Your task to perform on an android device: Open CNN.com Image 0: 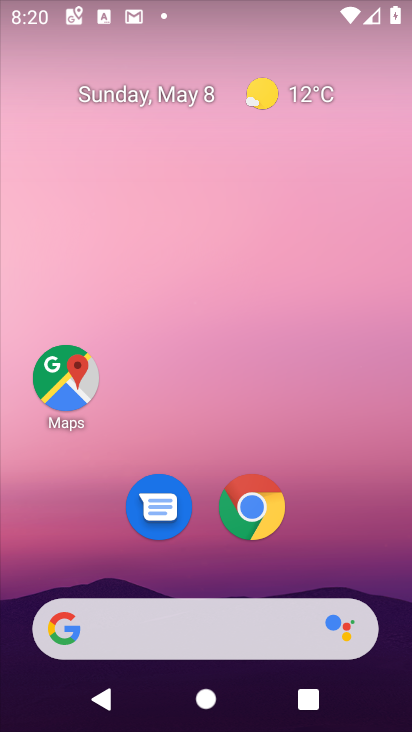
Step 0: click (228, 620)
Your task to perform on an android device: Open CNN.com Image 1: 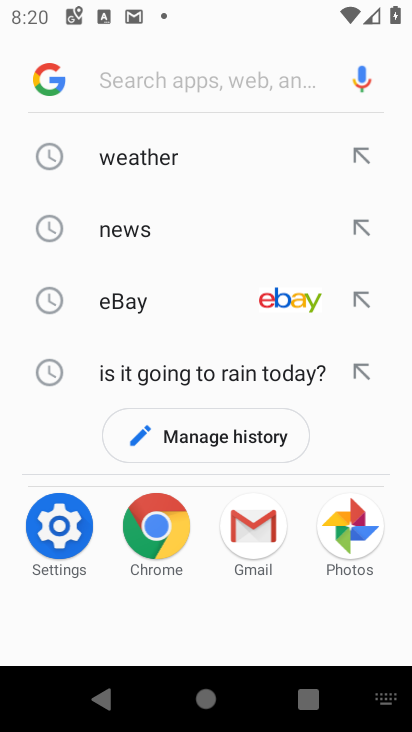
Step 1: type "cnn.com"
Your task to perform on an android device: Open CNN.com Image 2: 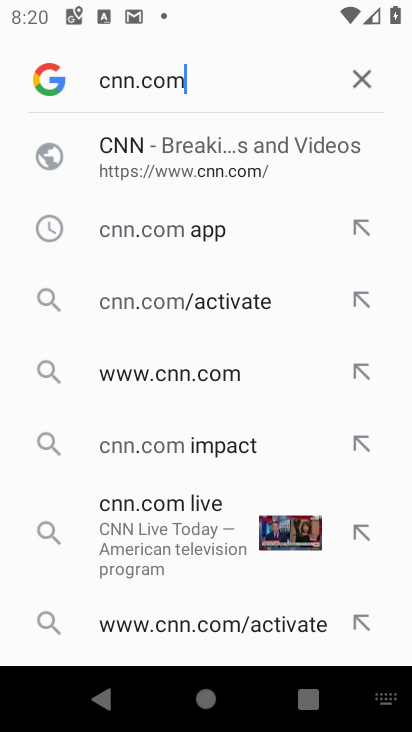
Step 2: click (185, 167)
Your task to perform on an android device: Open CNN.com Image 3: 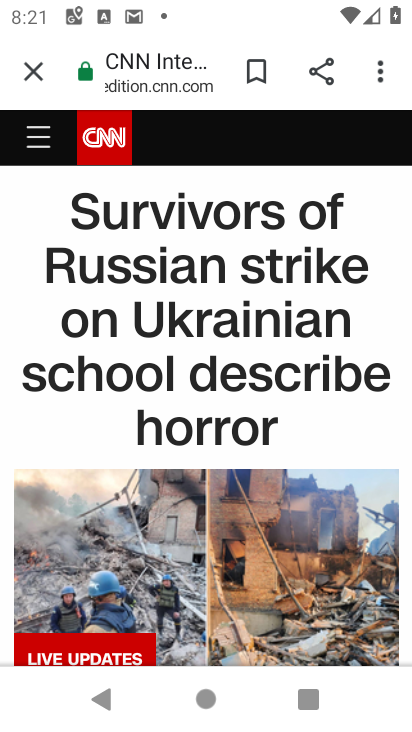
Step 3: task complete